Your task to perform on an android device: Go to Yahoo.com Image 0: 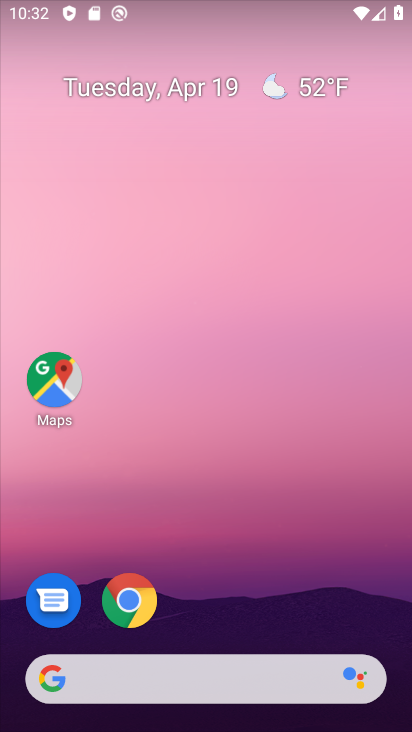
Step 0: drag from (224, 650) to (218, 12)
Your task to perform on an android device: Go to Yahoo.com Image 1: 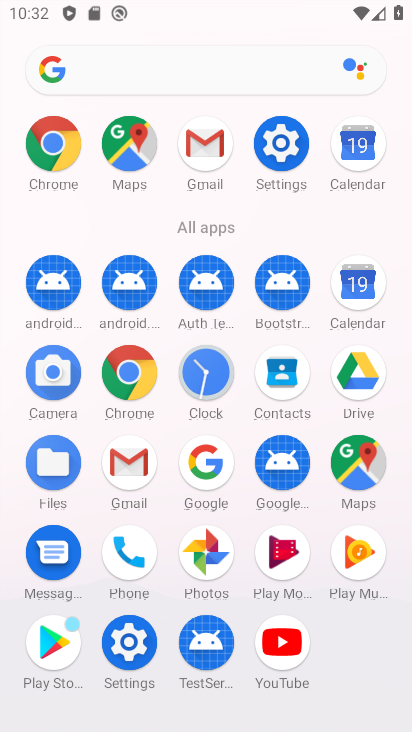
Step 1: click (138, 370)
Your task to perform on an android device: Go to Yahoo.com Image 2: 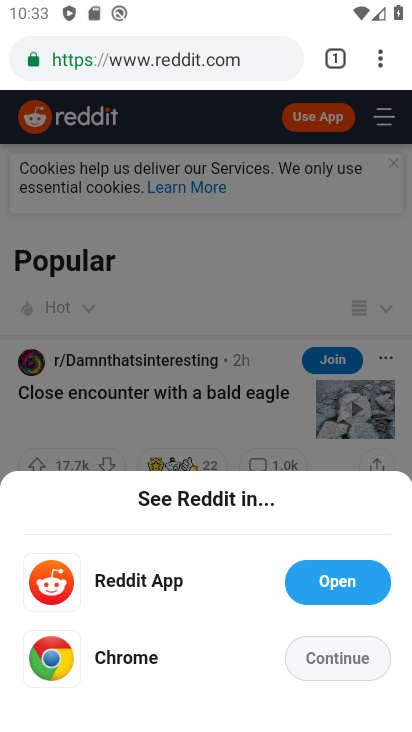
Step 2: click (344, 55)
Your task to perform on an android device: Go to Yahoo.com Image 3: 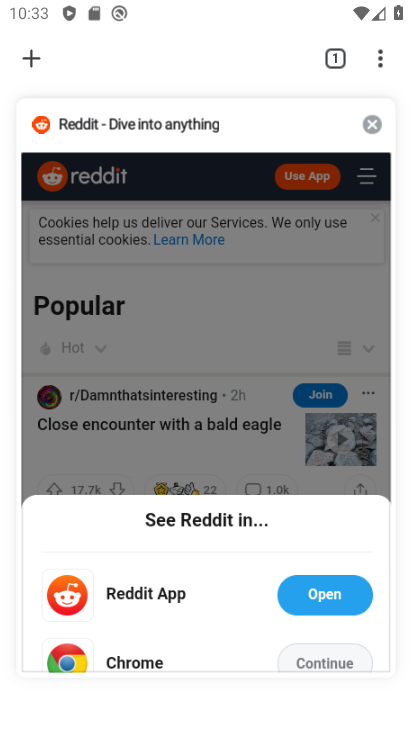
Step 3: click (17, 59)
Your task to perform on an android device: Go to Yahoo.com Image 4: 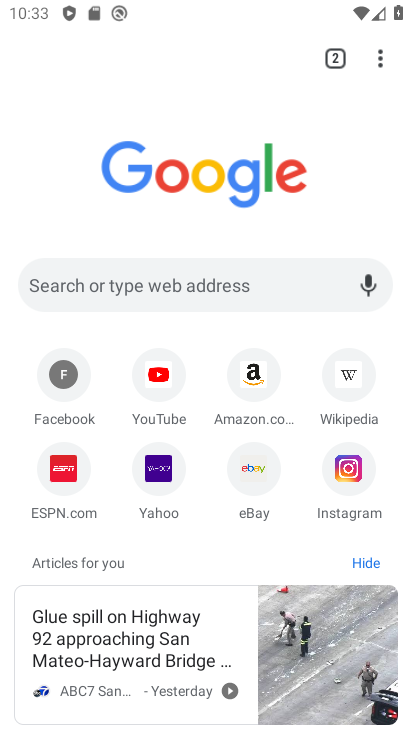
Step 4: click (160, 468)
Your task to perform on an android device: Go to Yahoo.com Image 5: 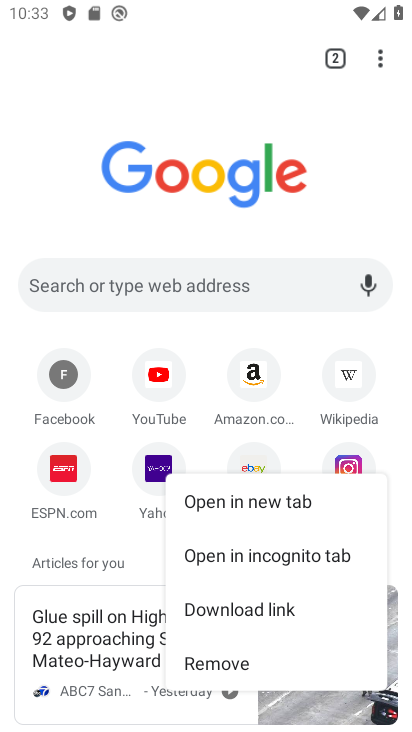
Step 5: click (146, 477)
Your task to perform on an android device: Go to Yahoo.com Image 6: 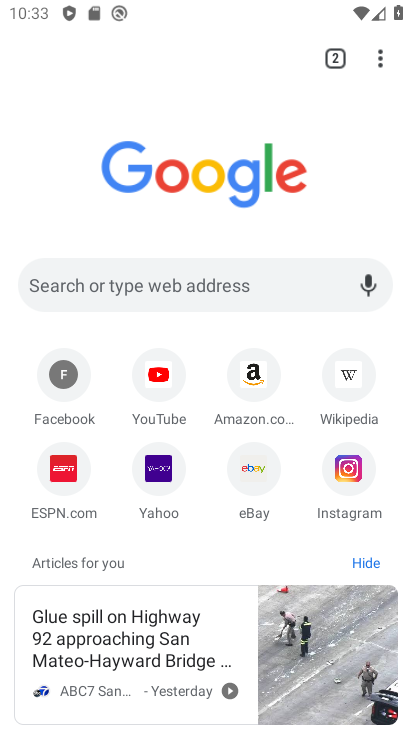
Step 6: click (146, 477)
Your task to perform on an android device: Go to Yahoo.com Image 7: 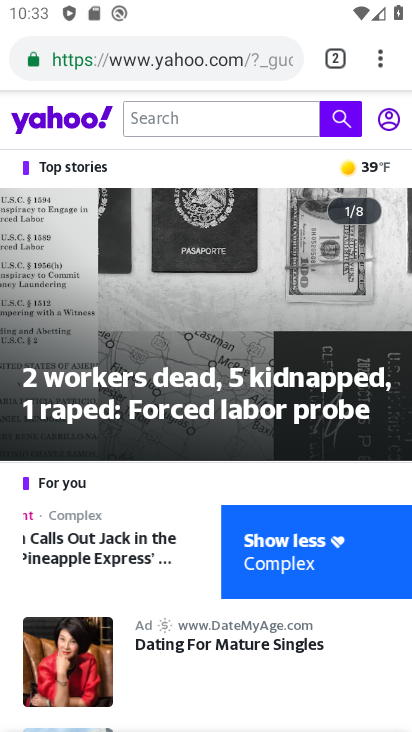
Step 7: task complete